Your task to perform on an android device: Go to Android settings Image 0: 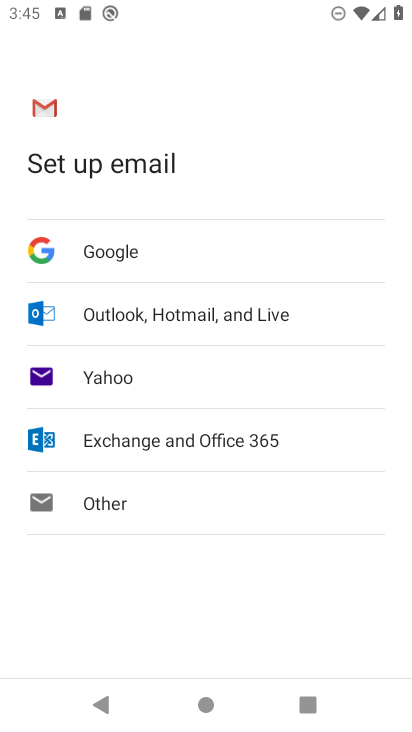
Step 0: press home button
Your task to perform on an android device: Go to Android settings Image 1: 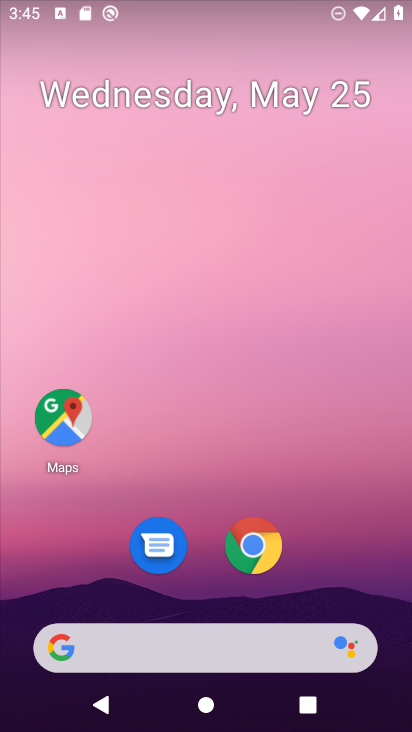
Step 1: drag from (325, 575) to (316, 19)
Your task to perform on an android device: Go to Android settings Image 2: 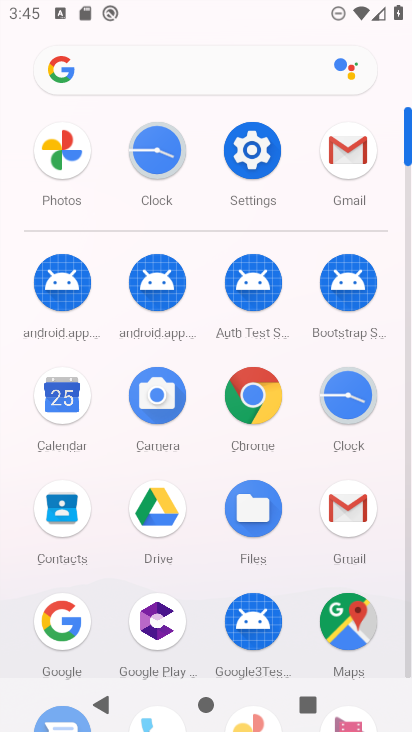
Step 2: click (250, 189)
Your task to perform on an android device: Go to Android settings Image 3: 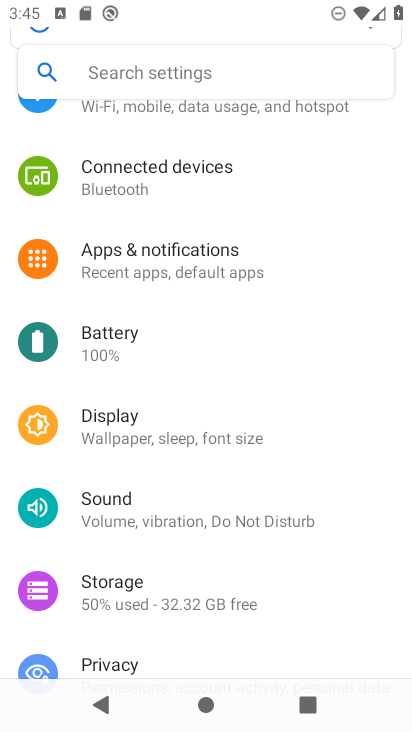
Step 3: task complete